Your task to perform on an android device: change the clock display to analog Image 0: 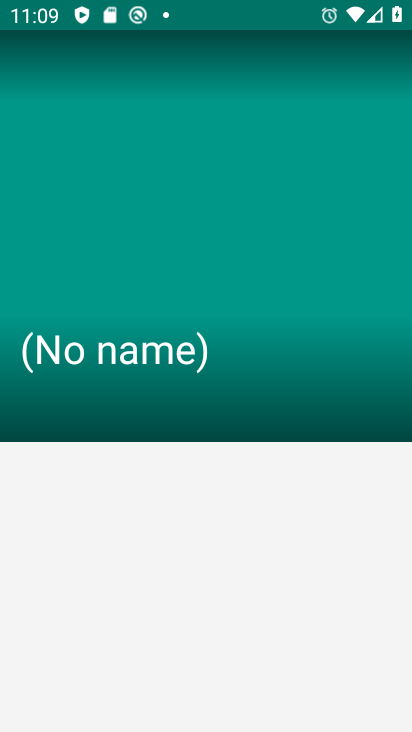
Step 0: click (78, 463)
Your task to perform on an android device: change the clock display to analog Image 1: 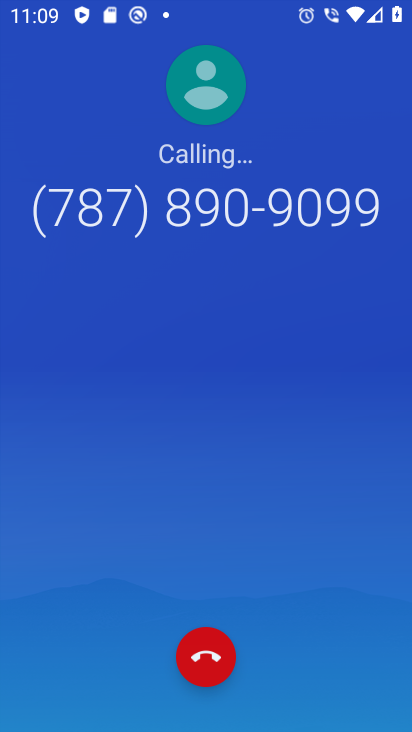
Step 1: press home button
Your task to perform on an android device: change the clock display to analog Image 2: 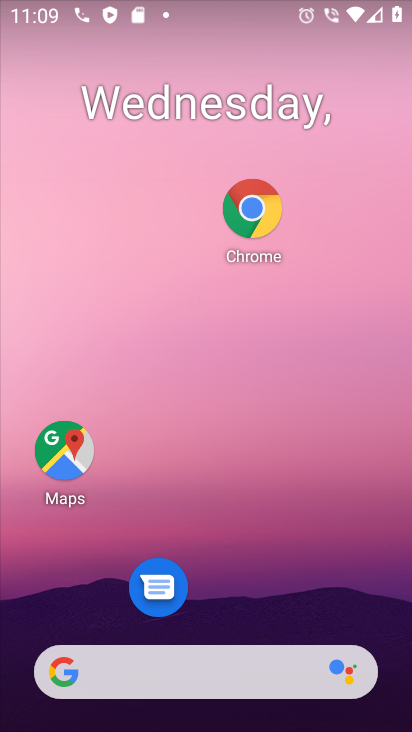
Step 2: drag from (204, 624) to (289, 49)
Your task to perform on an android device: change the clock display to analog Image 3: 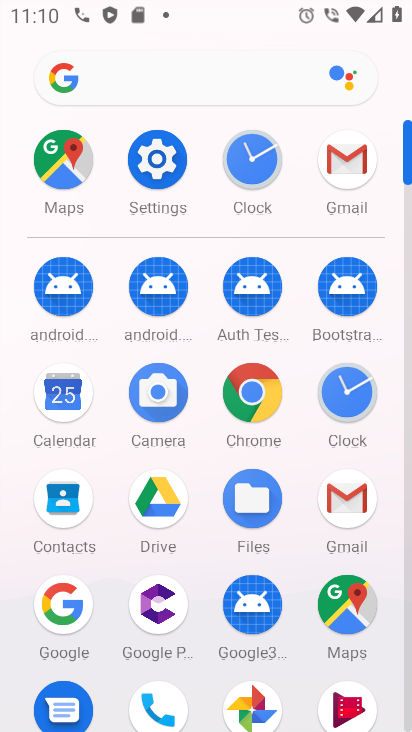
Step 3: click (344, 402)
Your task to perform on an android device: change the clock display to analog Image 4: 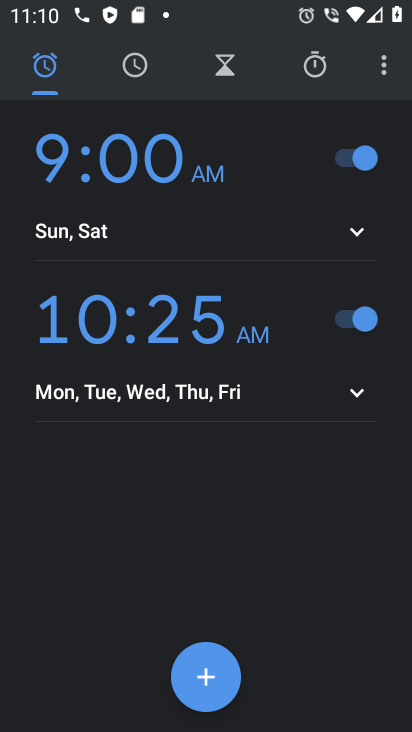
Step 4: click (381, 61)
Your task to perform on an android device: change the clock display to analog Image 5: 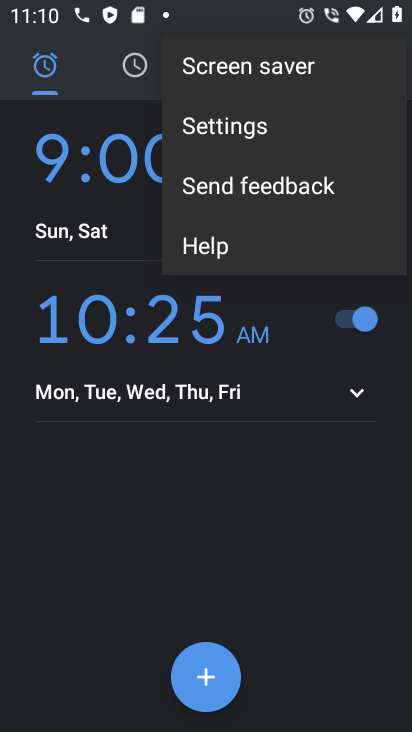
Step 5: click (253, 115)
Your task to perform on an android device: change the clock display to analog Image 6: 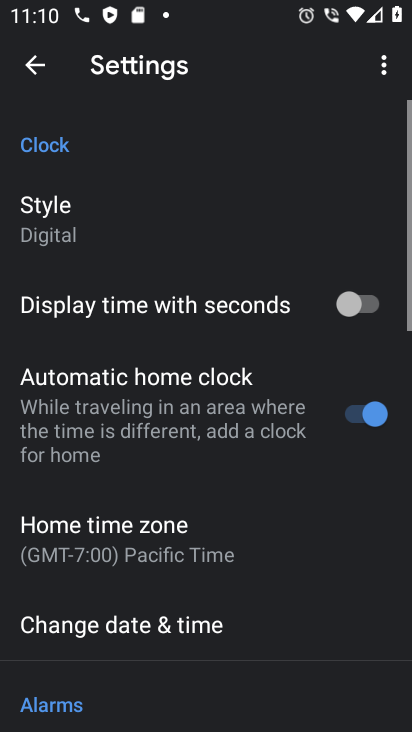
Step 6: click (95, 223)
Your task to perform on an android device: change the clock display to analog Image 7: 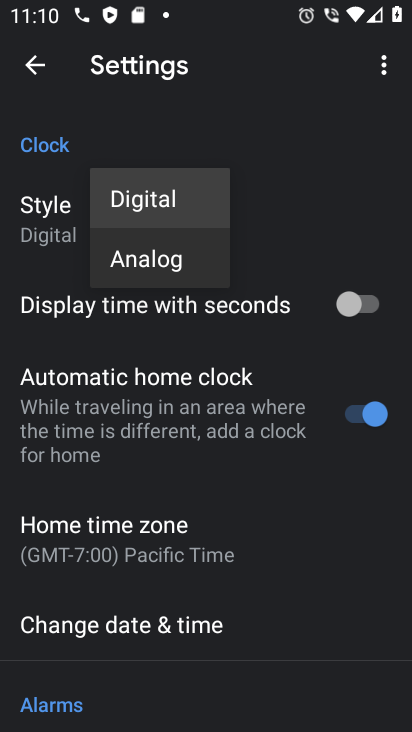
Step 7: click (116, 267)
Your task to perform on an android device: change the clock display to analog Image 8: 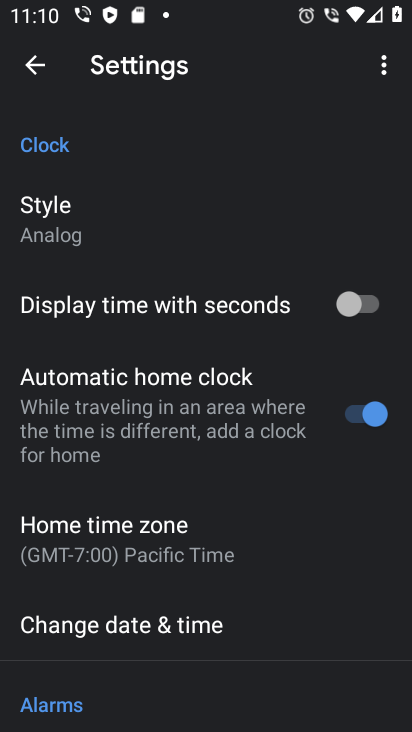
Step 8: task complete